Your task to perform on an android device: Turn off the flashlight Image 0: 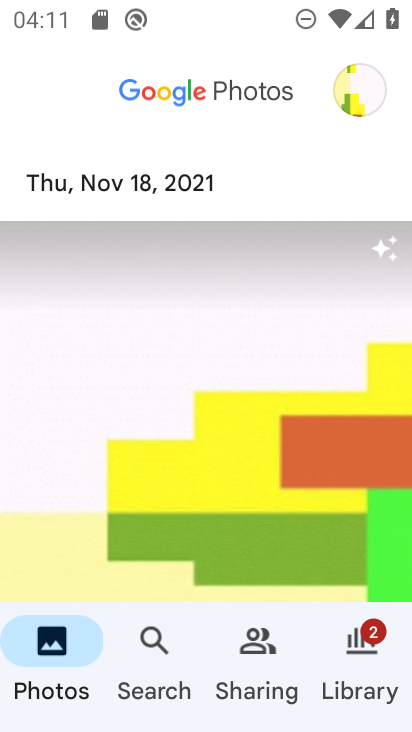
Step 0: press home button
Your task to perform on an android device: Turn off the flashlight Image 1: 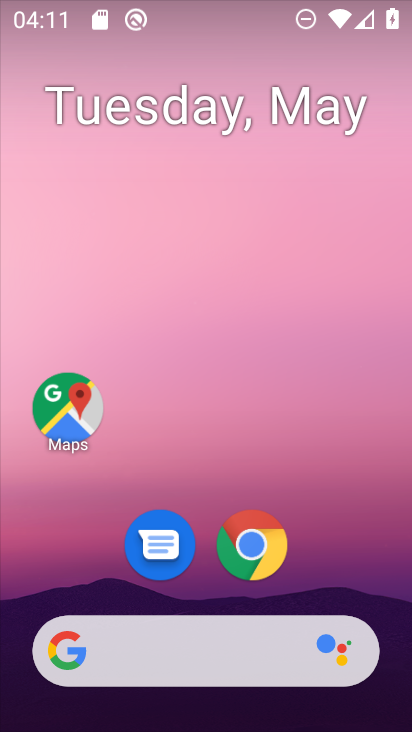
Step 1: drag from (224, 17) to (246, 450)
Your task to perform on an android device: Turn off the flashlight Image 2: 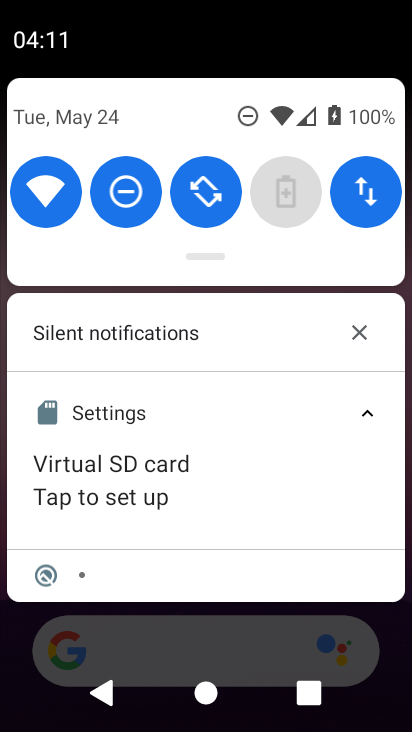
Step 2: drag from (200, 254) to (221, 498)
Your task to perform on an android device: Turn off the flashlight Image 3: 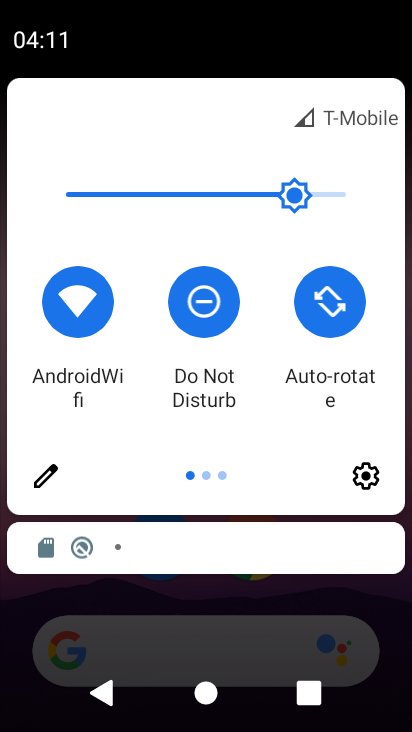
Step 3: click (40, 474)
Your task to perform on an android device: Turn off the flashlight Image 4: 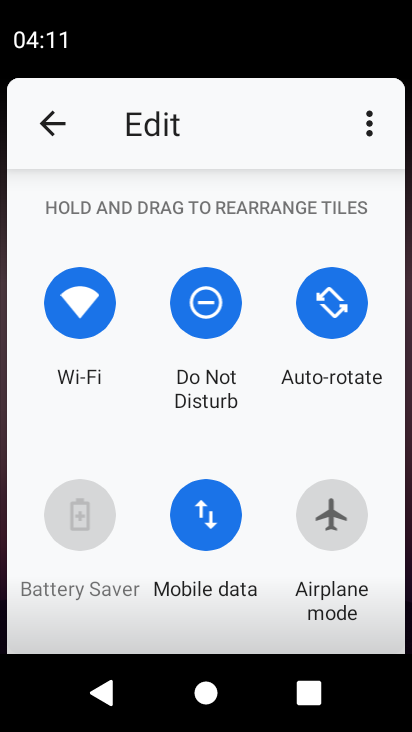
Step 4: task complete